Your task to perform on an android device: When is my next appointment? Image 0: 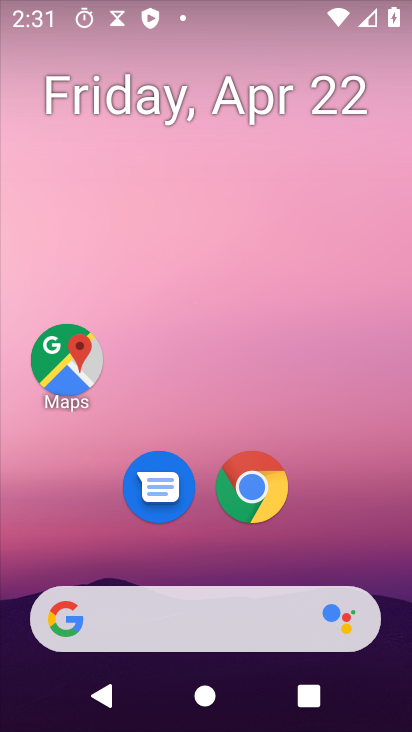
Step 0: drag from (164, 611) to (313, 108)
Your task to perform on an android device: When is my next appointment? Image 1: 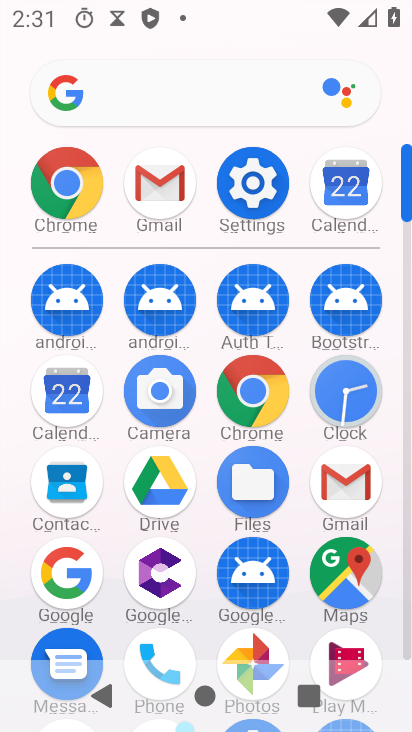
Step 1: click (51, 393)
Your task to perform on an android device: When is my next appointment? Image 2: 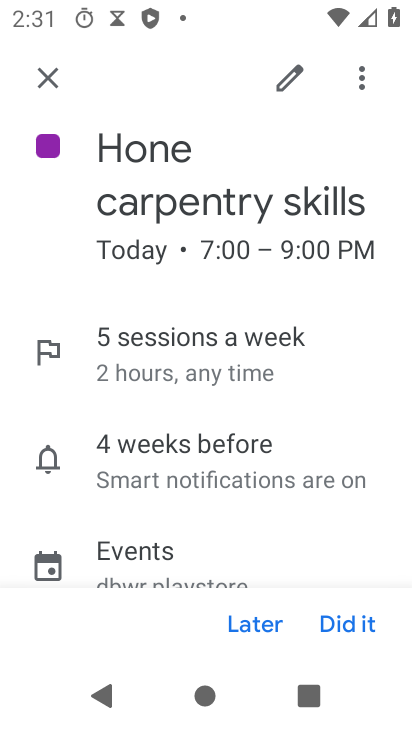
Step 2: task complete